Your task to perform on an android device: empty trash in google photos Image 0: 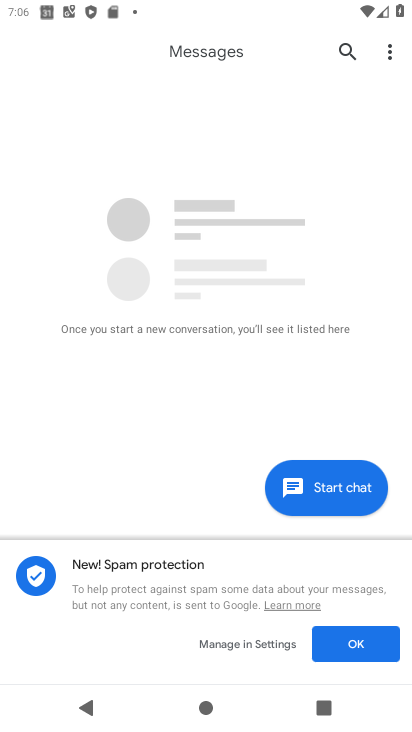
Step 0: press home button
Your task to perform on an android device: empty trash in google photos Image 1: 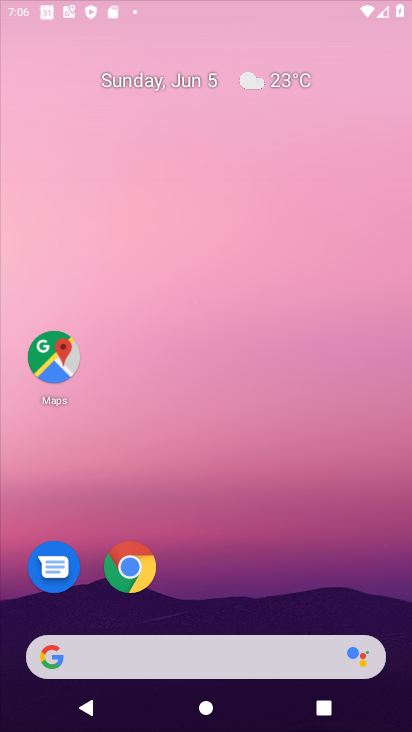
Step 1: drag from (388, 676) to (207, 122)
Your task to perform on an android device: empty trash in google photos Image 2: 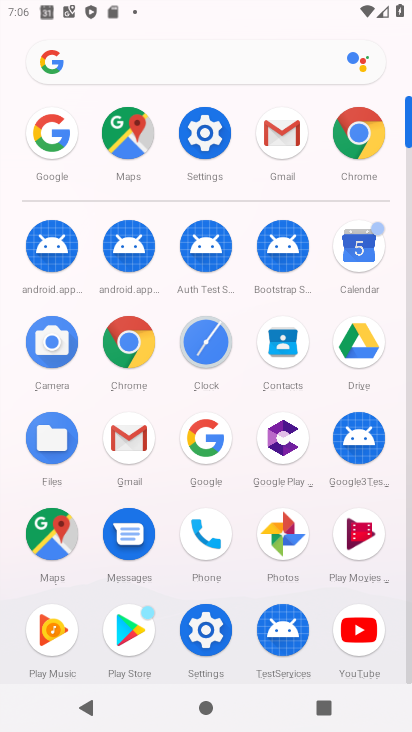
Step 2: click (278, 520)
Your task to perform on an android device: empty trash in google photos Image 3: 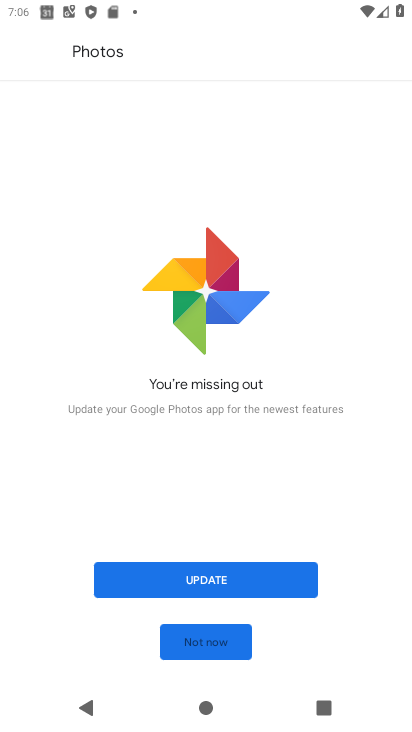
Step 3: click (249, 569)
Your task to perform on an android device: empty trash in google photos Image 4: 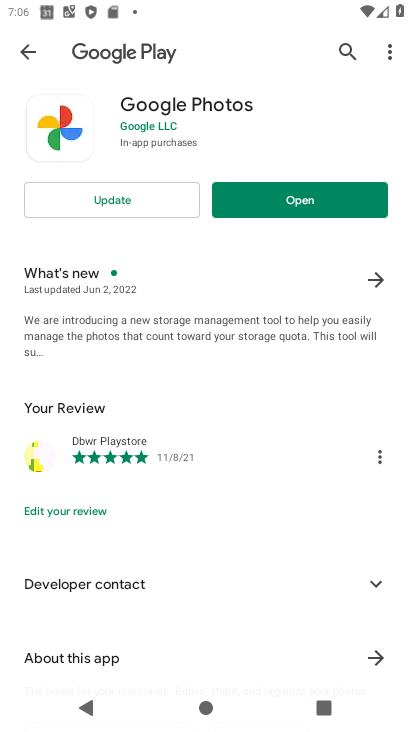
Step 4: click (133, 192)
Your task to perform on an android device: empty trash in google photos Image 5: 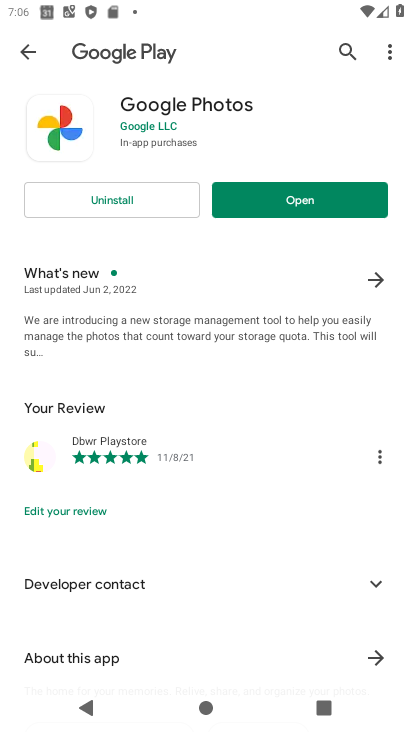
Step 5: click (313, 204)
Your task to perform on an android device: empty trash in google photos Image 6: 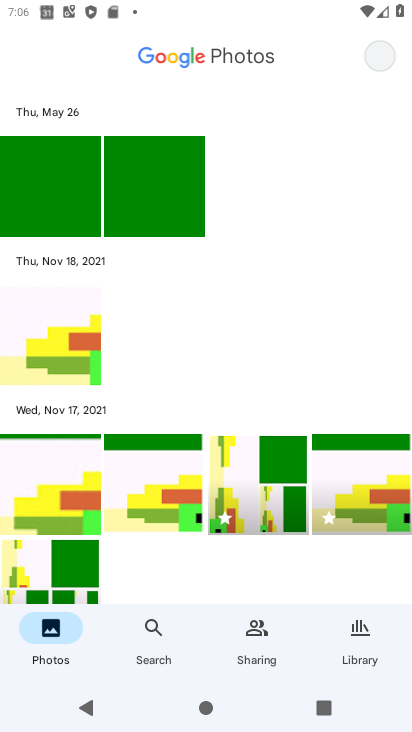
Step 6: click (343, 639)
Your task to perform on an android device: empty trash in google photos Image 7: 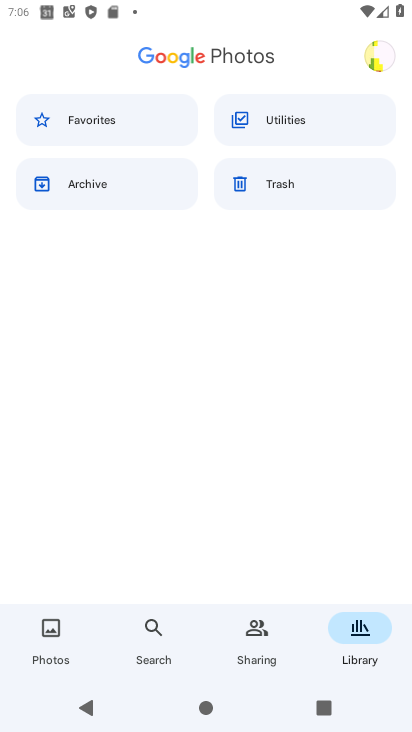
Step 7: click (306, 183)
Your task to perform on an android device: empty trash in google photos Image 8: 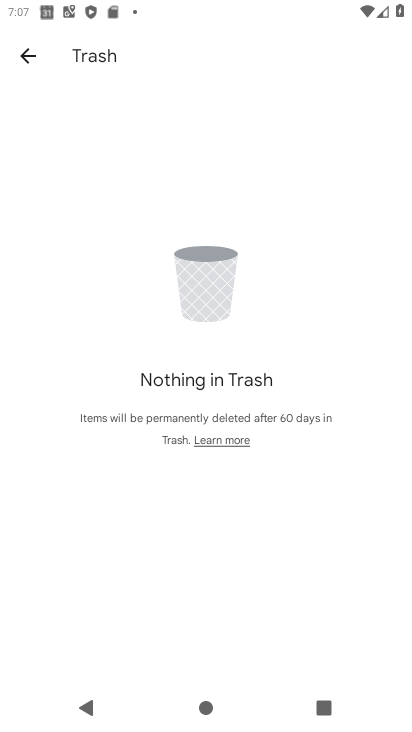
Step 8: task complete